Your task to perform on an android device: Show me productivity apps on the Play Store Image 0: 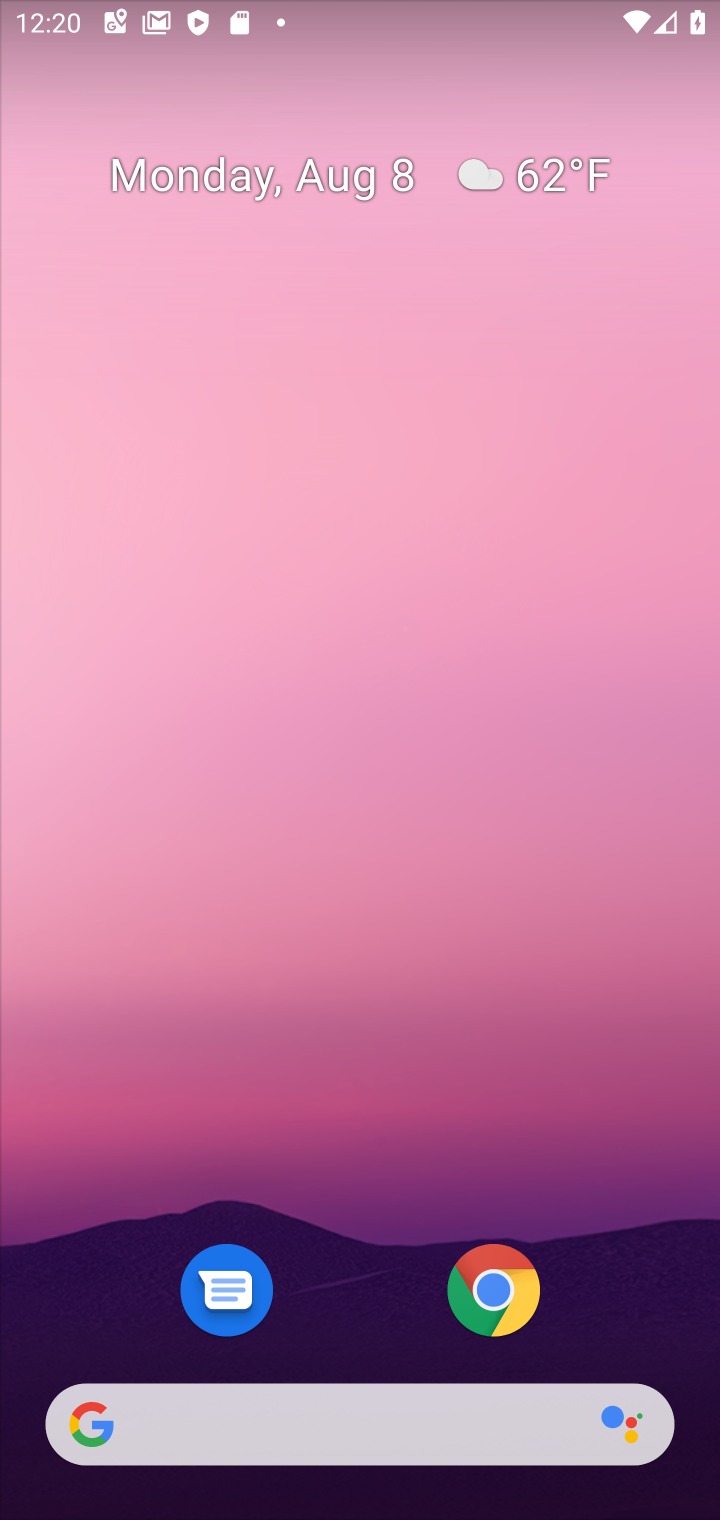
Step 0: drag from (470, 607) to (598, 97)
Your task to perform on an android device: Show me productivity apps on the Play Store Image 1: 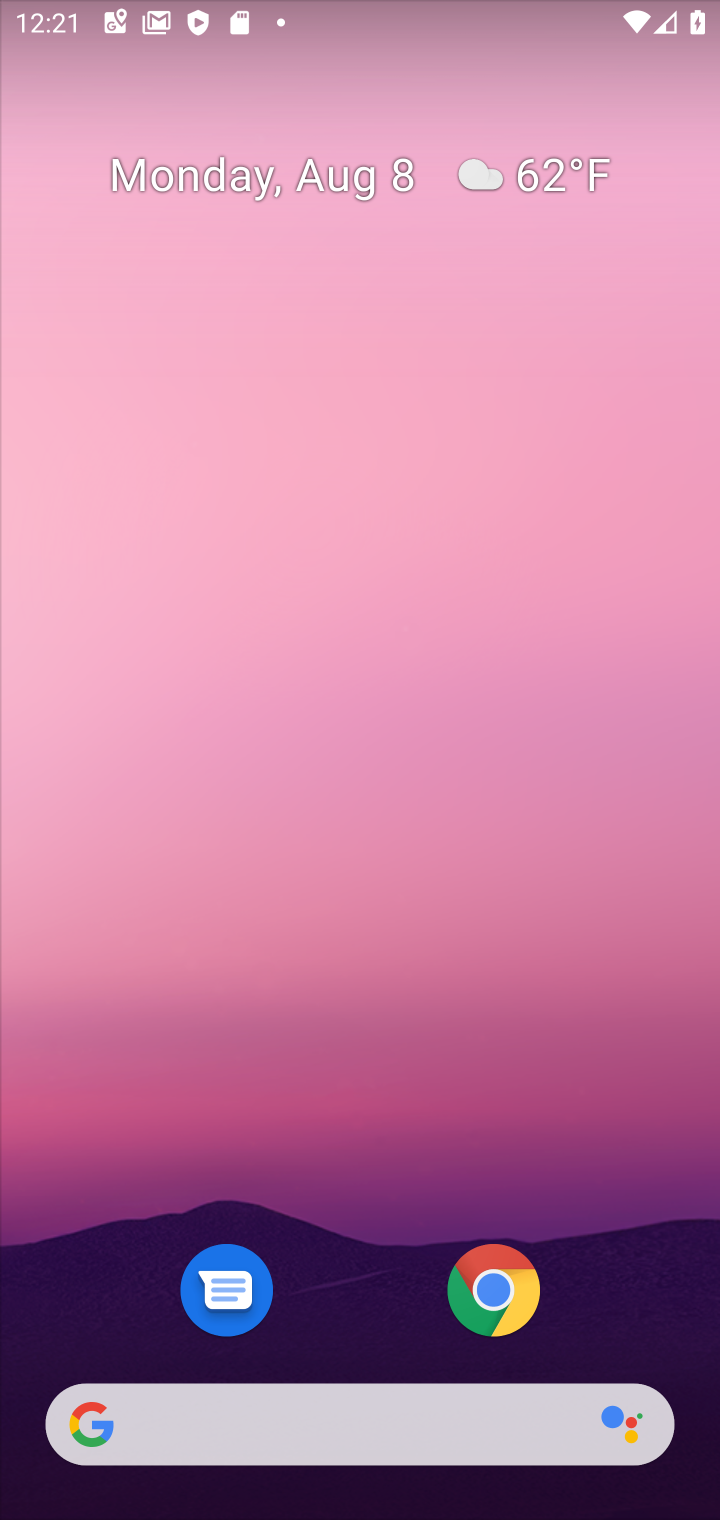
Step 1: click (343, 552)
Your task to perform on an android device: Show me productivity apps on the Play Store Image 2: 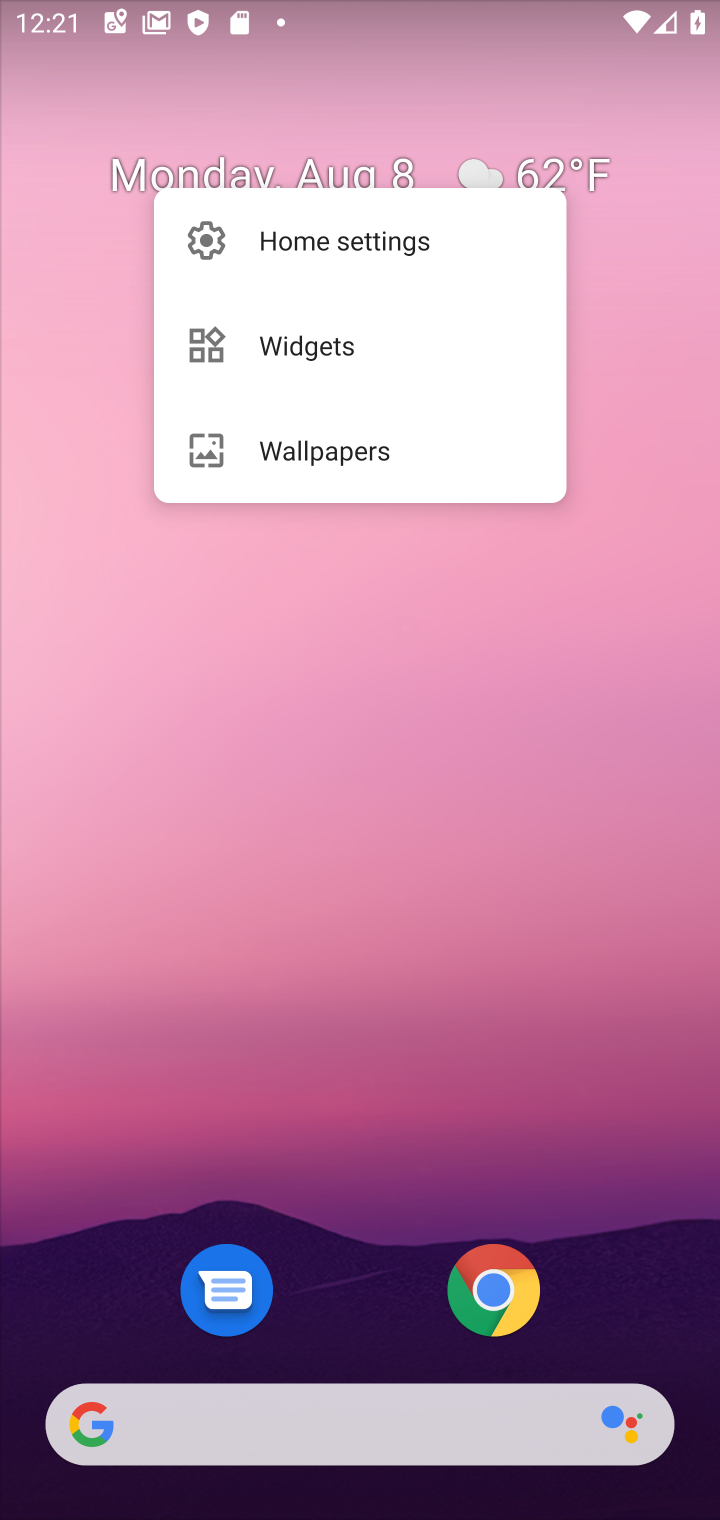
Step 2: click (386, 1239)
Your task to perform on an android device: Show me productivity apps on the Play Store Image 3: 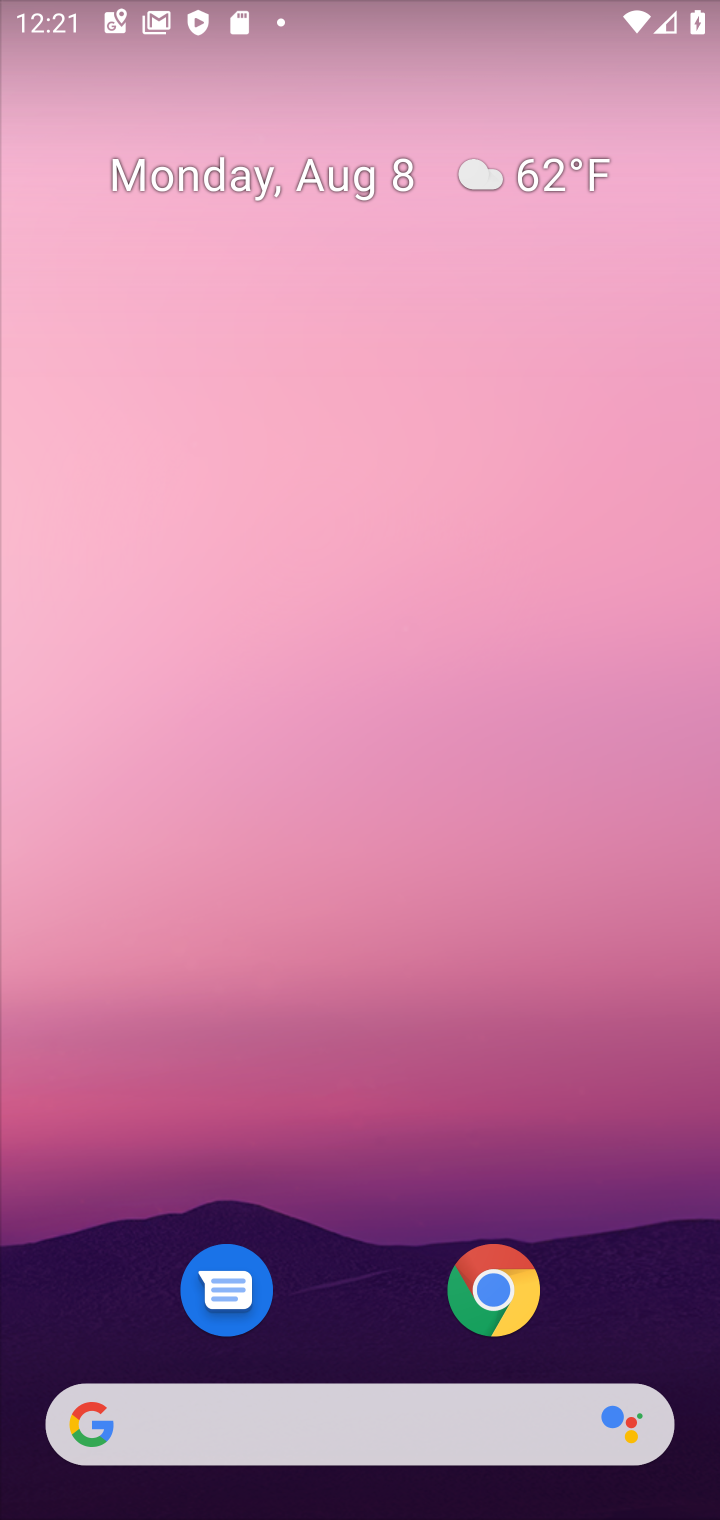
Step 3: drag from (357, 777) to (486, 3)
Your task to perform on an android device: Show me productivity apps on the Play Store Image 4: 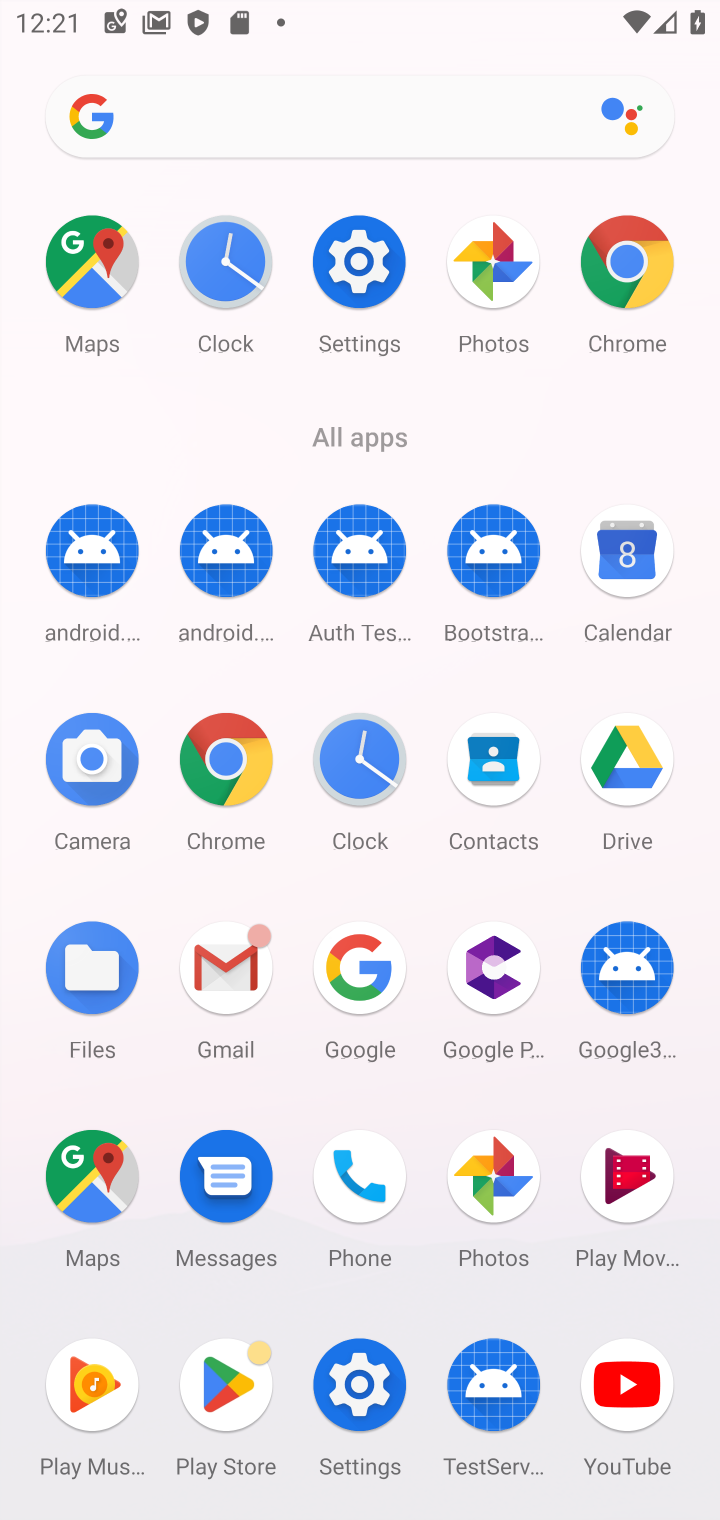
Step 4: click (229, 1382)
Your task to perform on an android device: Show me productivity apps on the Play Store Image 5: 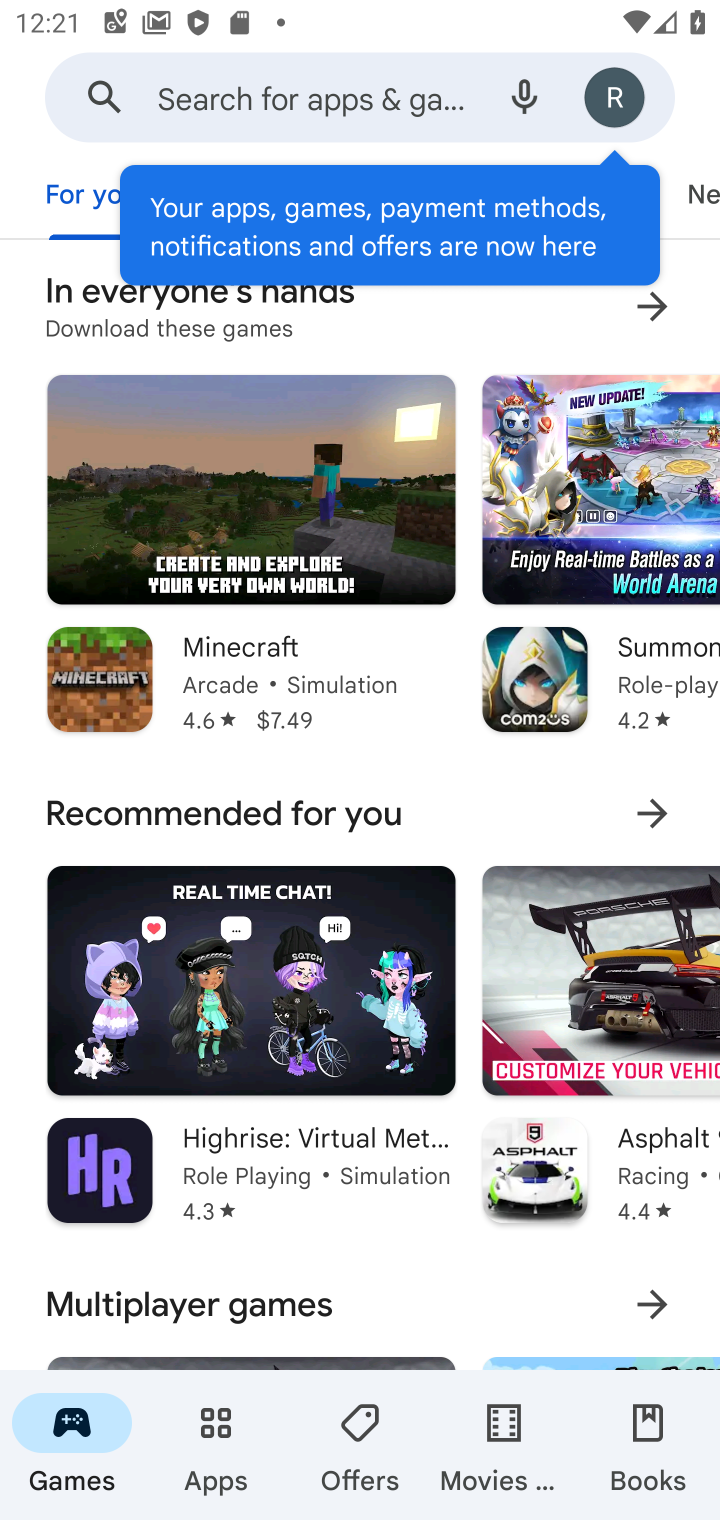
Step 5: click (230, 1426)
Your task to perform on an android device: Show me productivity apps on the Play Store Image 6: 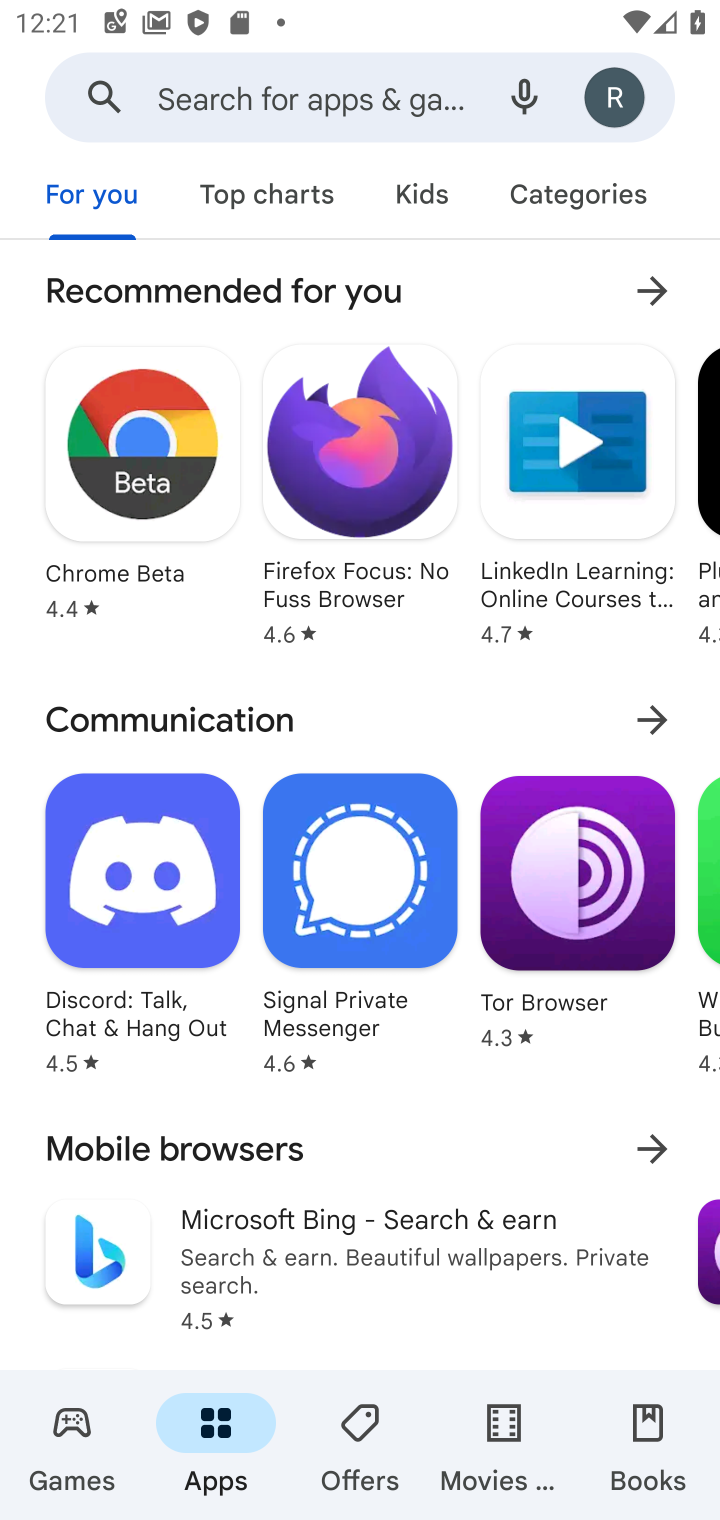
Step 6: click (572, 200)
Your task to perform on an android device: Show me productivity apps on the Play Store Image 7: 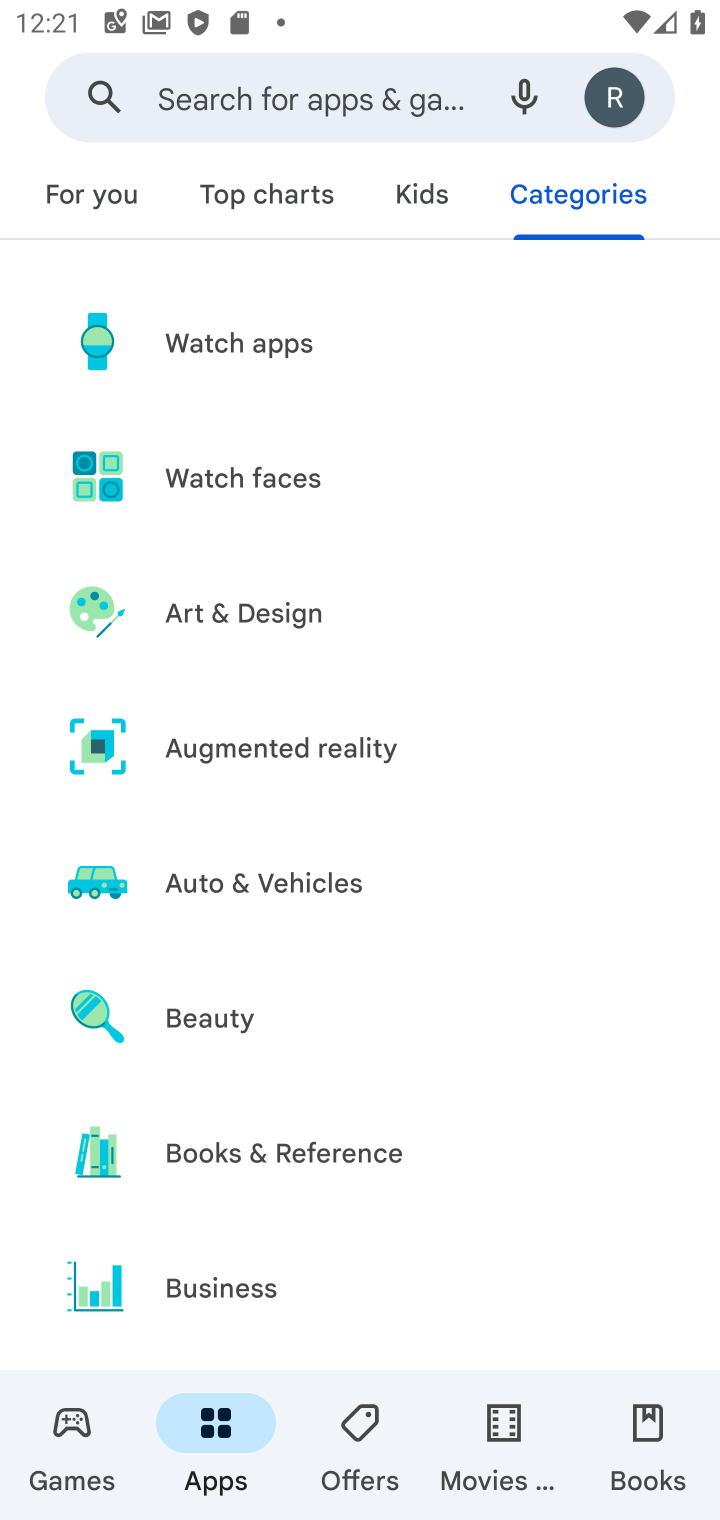
Step 7: drag from (327, 1239) to (216, 137)
Your task to perform on an android device: Show me productivity apps on the Play Store Image 8: 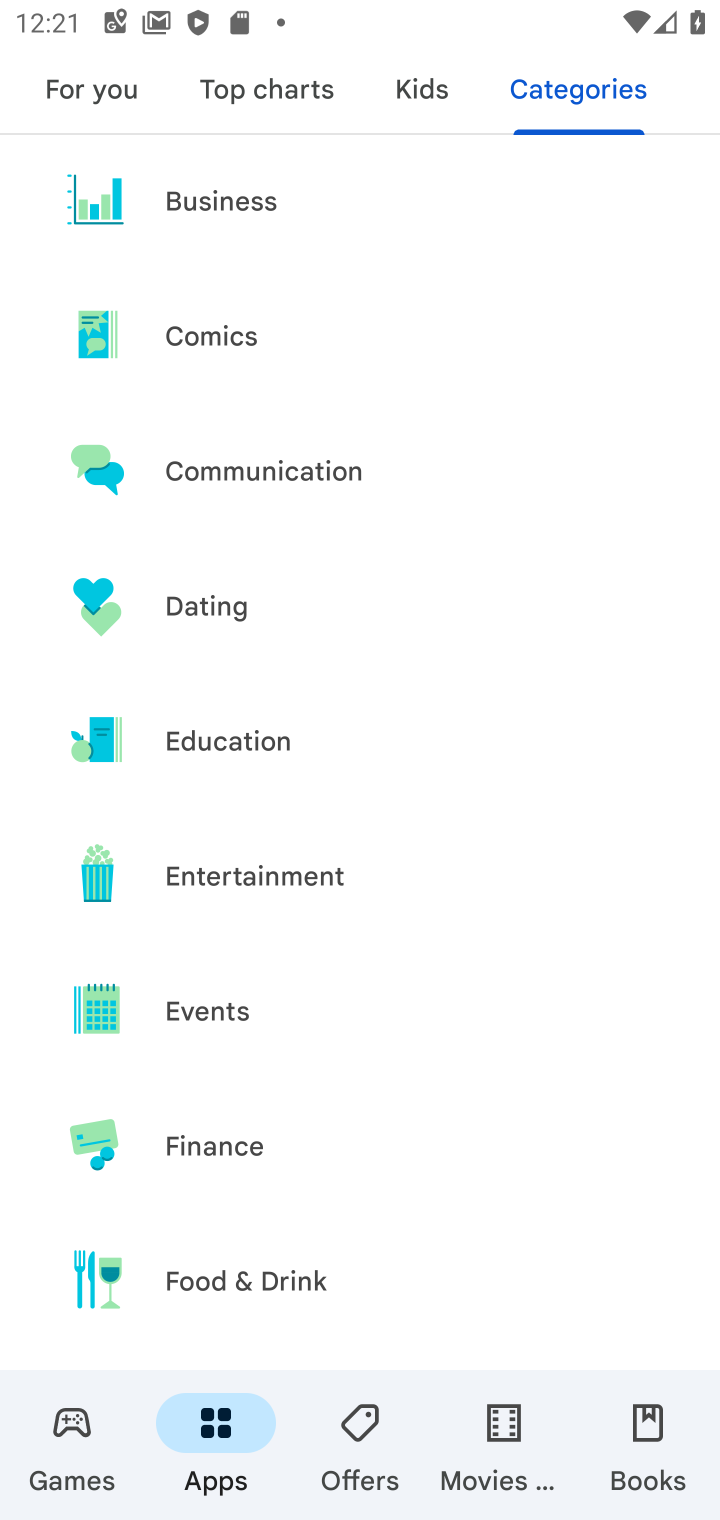
Step 8: drag from (324, 797) to (339, 267)
Your task to perform on an android device: Show me productivity apps on the Play Store Image 9: 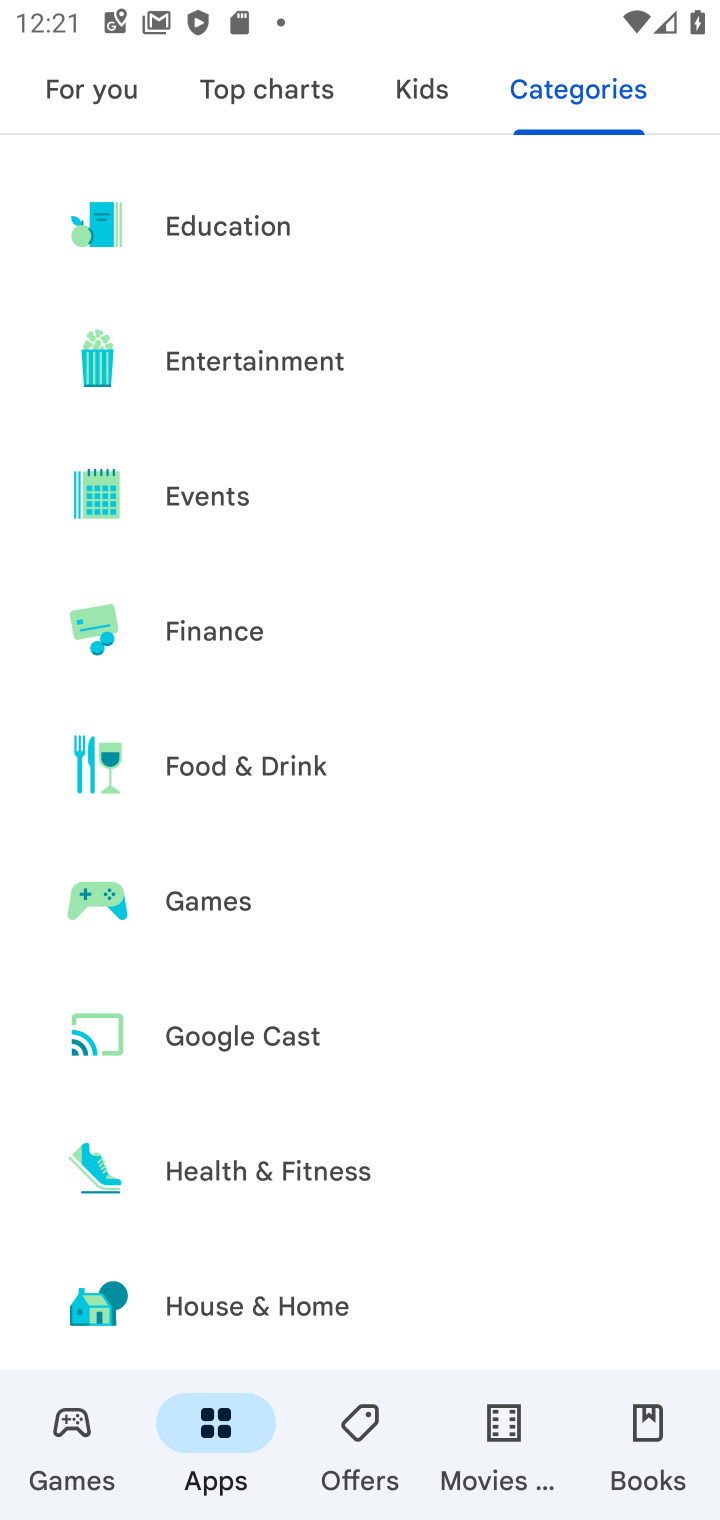
Step 9: drag from (257, 1081) to (261, 240)
Your task to perform on an android device: Show me productivity apps on the Play Store Image 10: 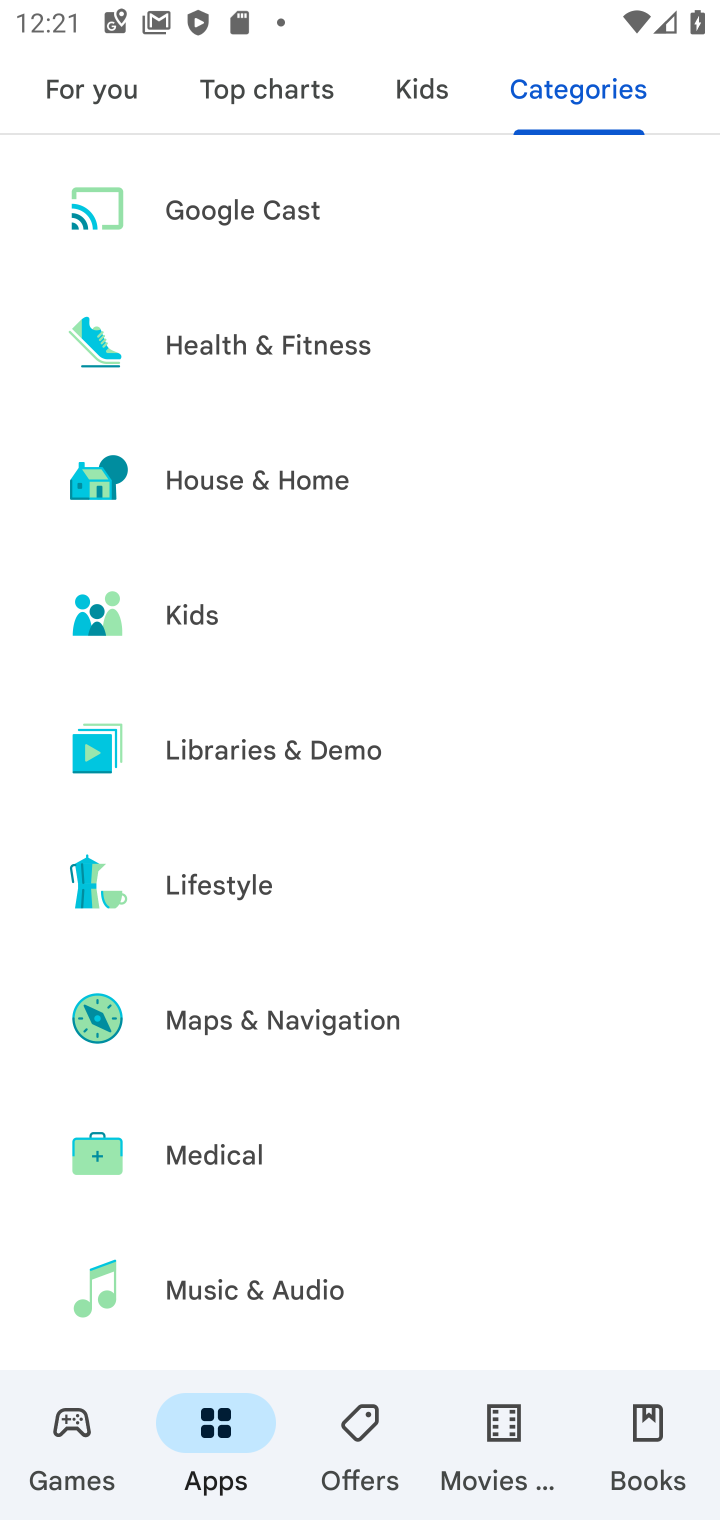
Step 10: drag from (284, 1244) to (340, 286)
Your task to perform on an android device: Show me productivity apps on the Play Store Image 11: 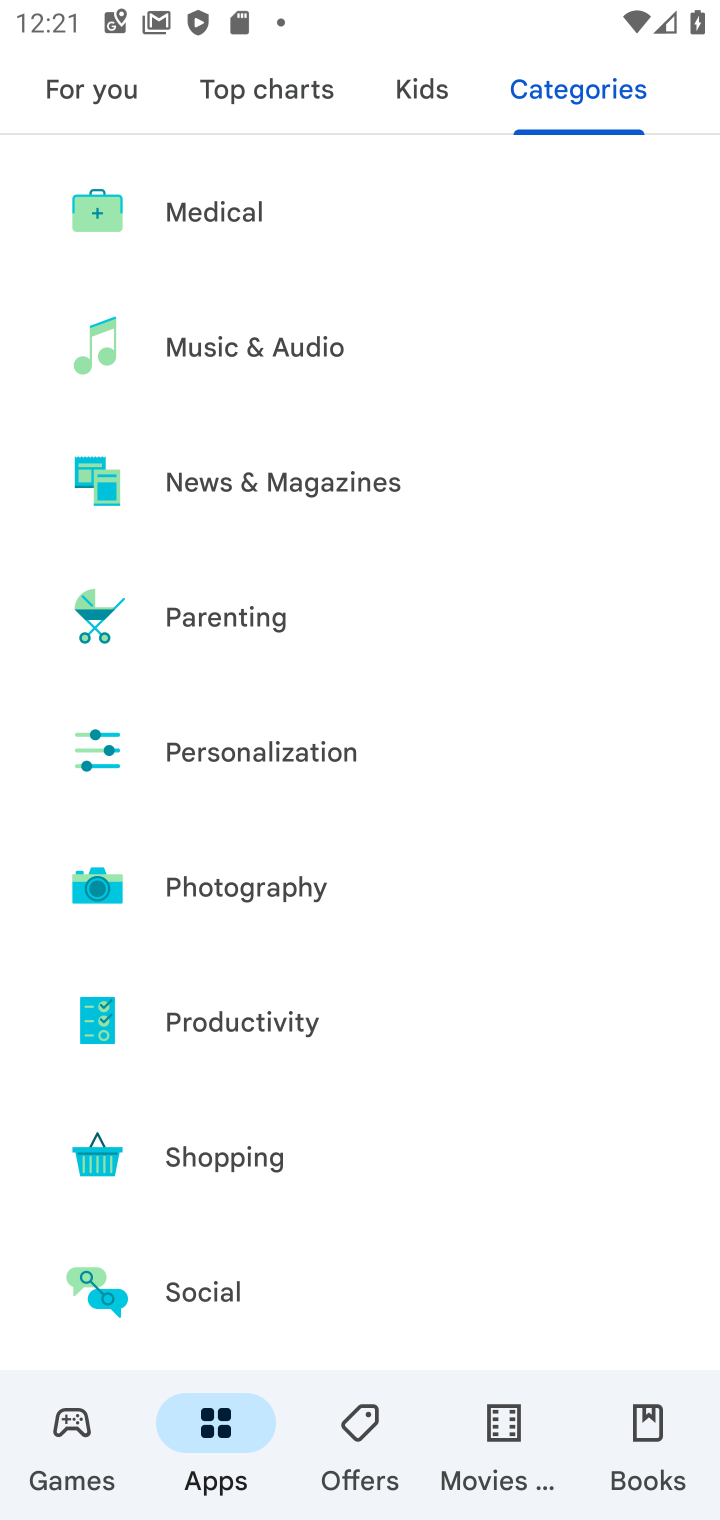
Step 11: click (307, 1031)
Your task to perform on an android device: Show me productivity apps on the Play Store Image 12: 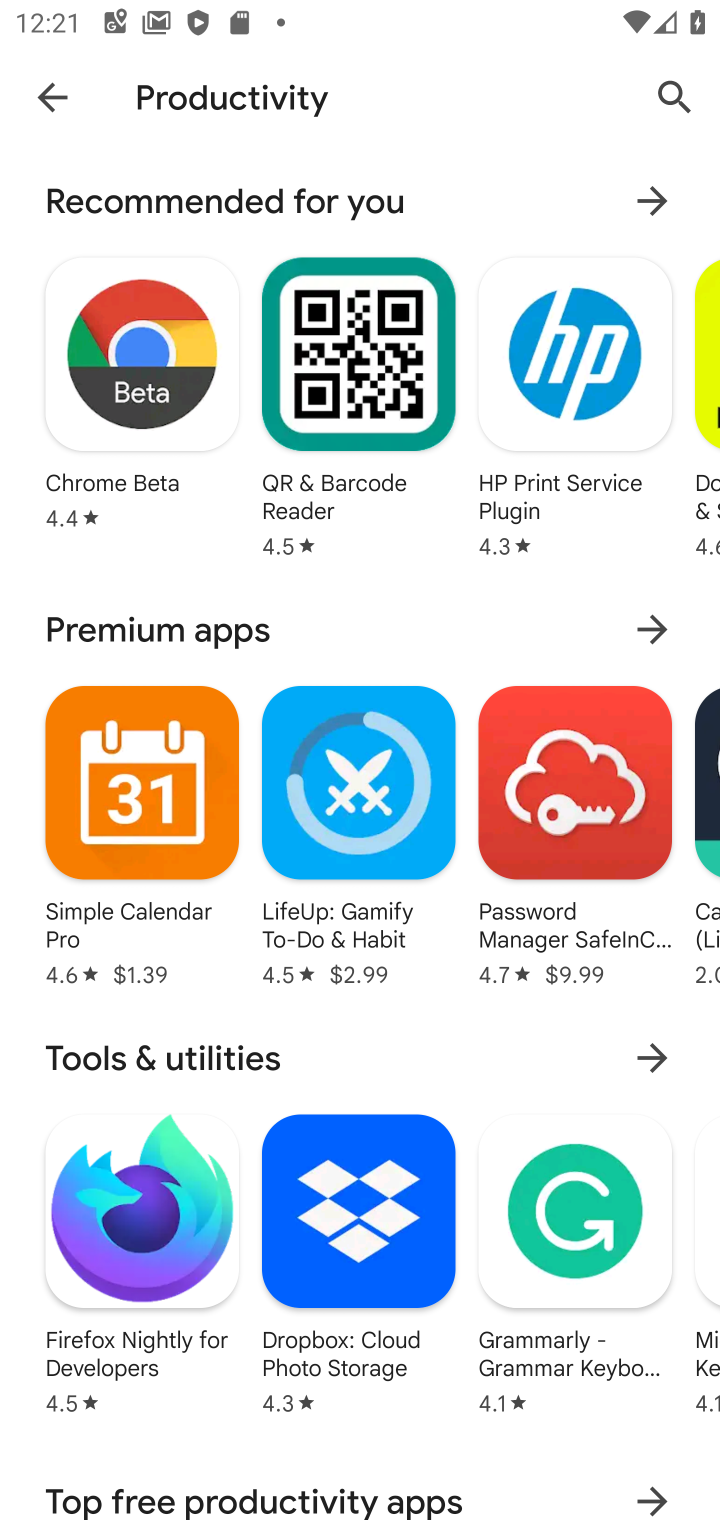
Step 12: task complete